Your task to perform on an android device: What is the news today? Image 0: 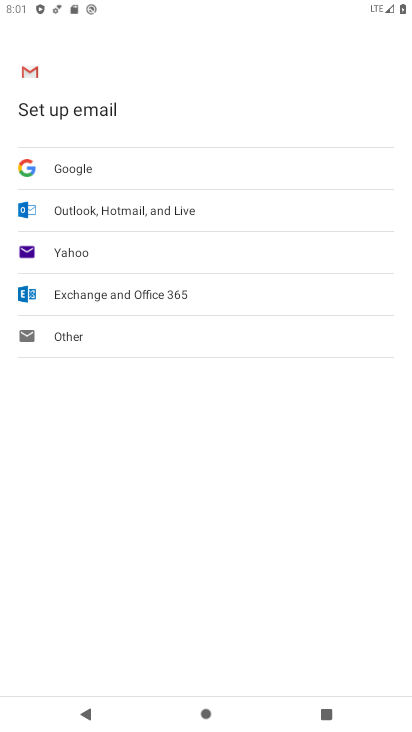
Step 0: press home button
Your task to perform on an android device: What is the news today? Image 1: 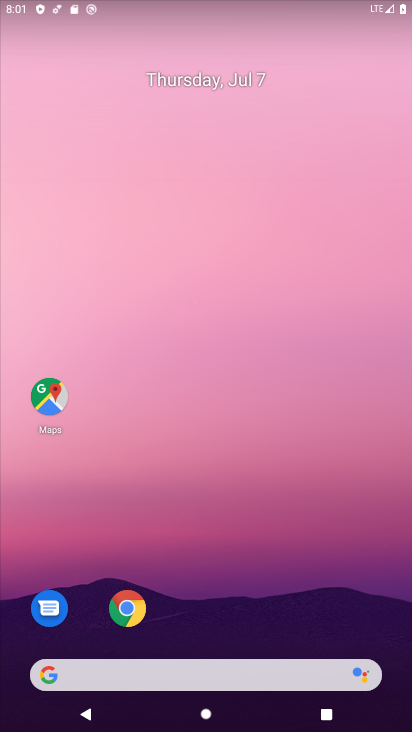
Step 1: task complete